Your task to perform on an android device: Open internet settings Image 0: 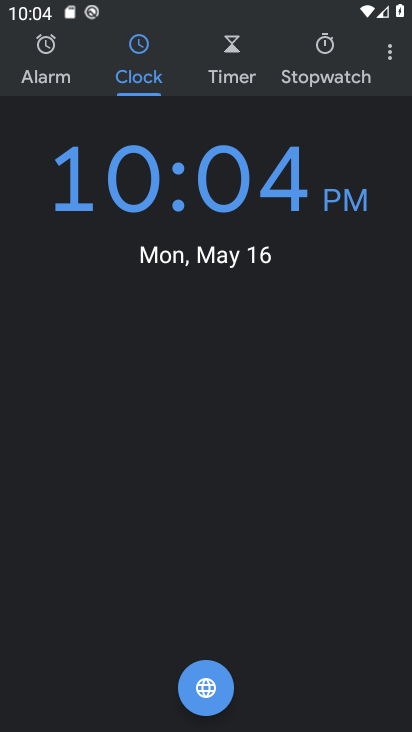
Step 0: press back button
Your task to perform on an android device: Open internet settings Image 1: 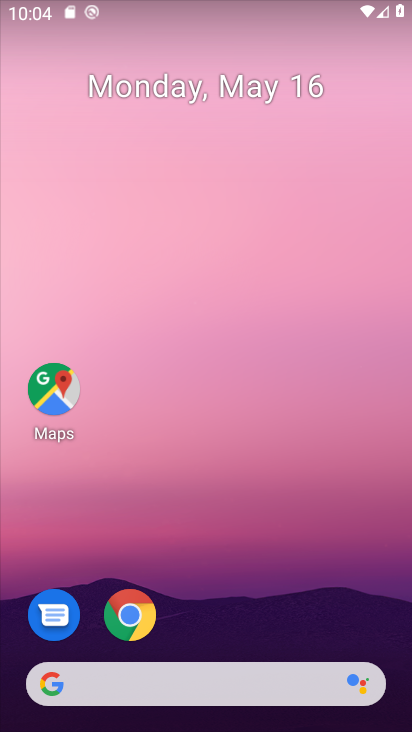
Step 1: drag from (276, 578) to (245, 10)
Your task to perform on an android device: Open internet settings Image 2: 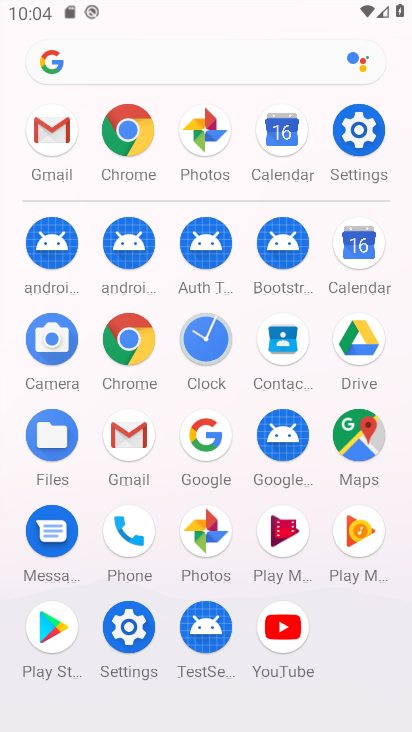
Step 2: click (359, 127)
Your task to perform on an android device: Open internet settings Image 3: 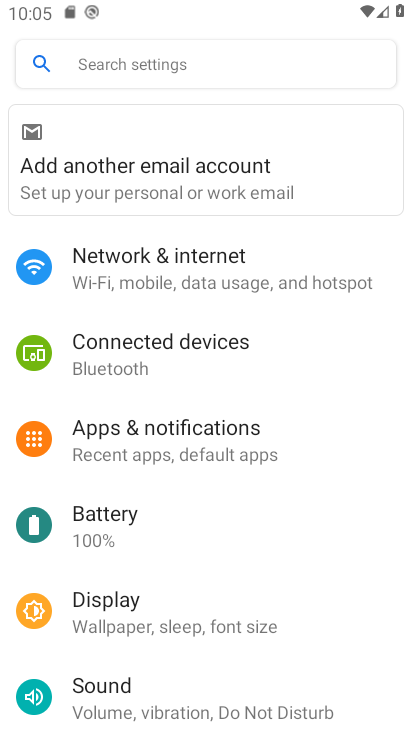
Step 3: click (214, 258)
Your task to perform on an android device: Open internet settings Image 4: 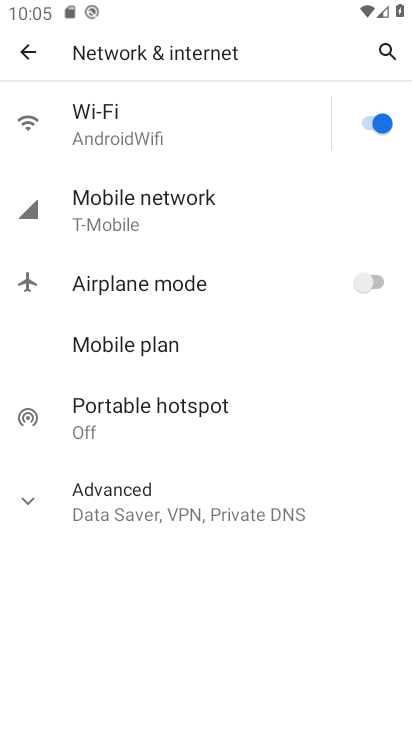
Step 4: click (23, 498)
Your task to perform on an android device: Open internet settings Image 5: 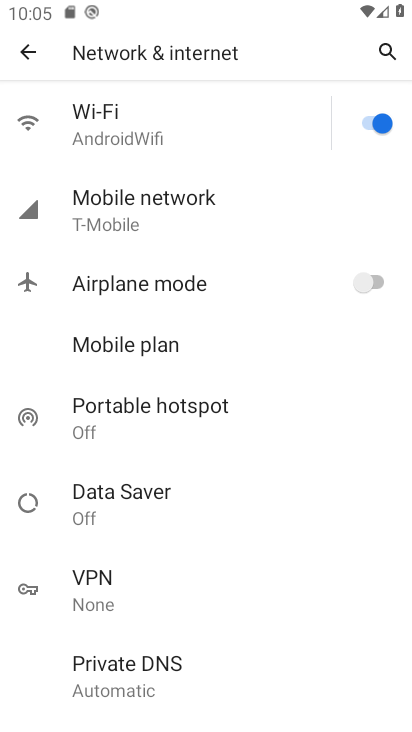
Step 5: task complete